Your task to perform on an android device: Open Reddit.com Image 0: 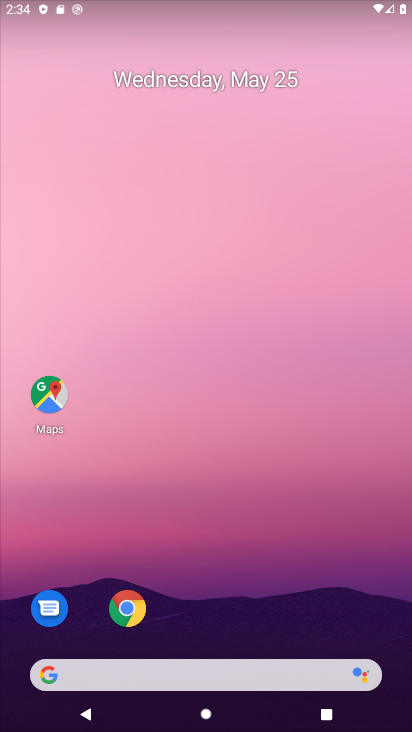
Step 0: click (128, 614)
Your task to perform on an android device: Open Reddit.com Image 1: 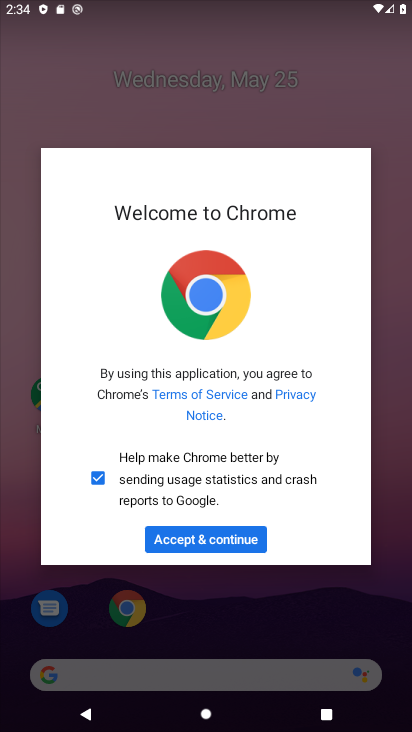
Step 1: click (191, 546)
Your task to perform on an android device: Open Reddit.com Image 2: 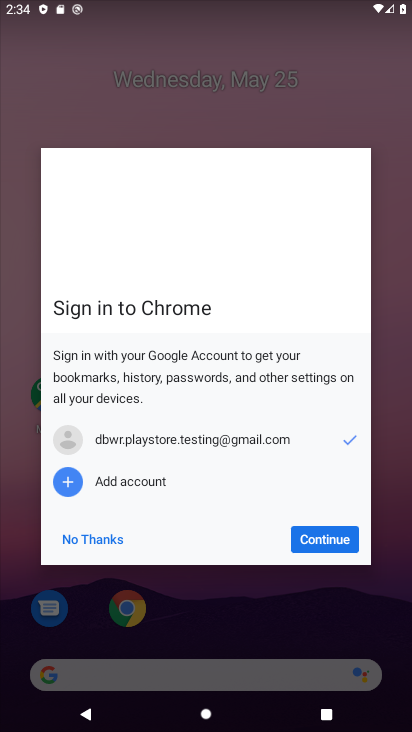
Step 2: click (109, 547)
Your task to perform on an android device: Open Reddit.com Image 3: 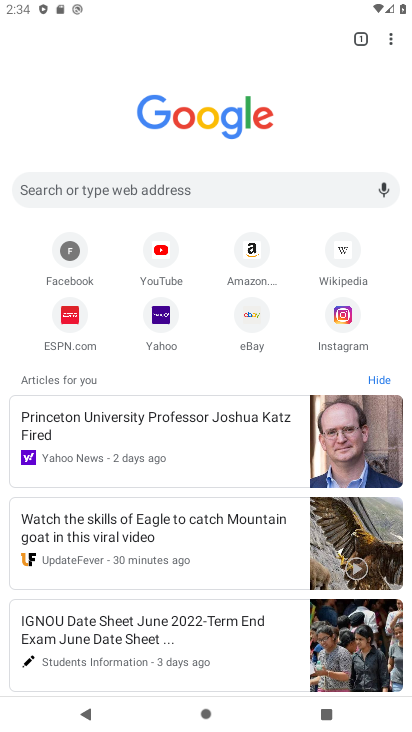
Step 3: click (100, 188)
Your task to perform on an android device: Open Reddit.com Image 4: 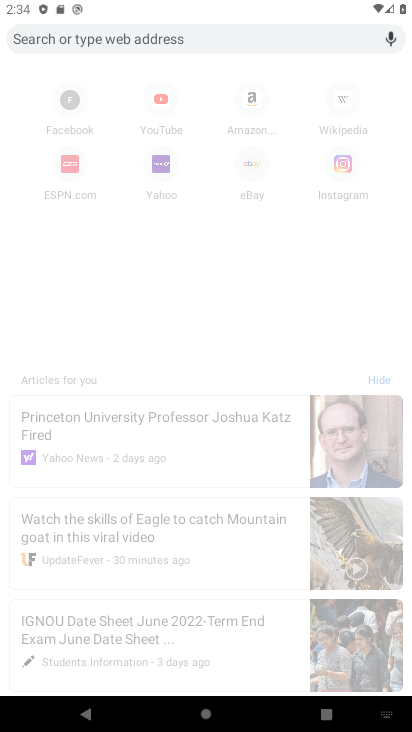
Step 4: type "reddit.com"
Your task to perform on an android device: Open Reddit.com Image 5: 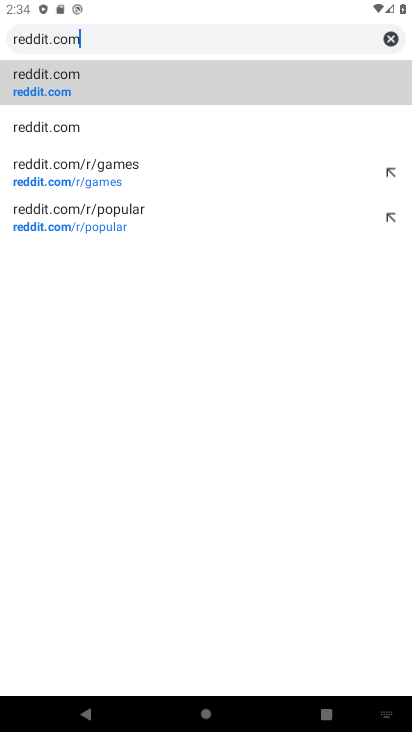
Step 5: click (40, 93)
Your task to perform on an android device: Open Reddit.com Image 6: 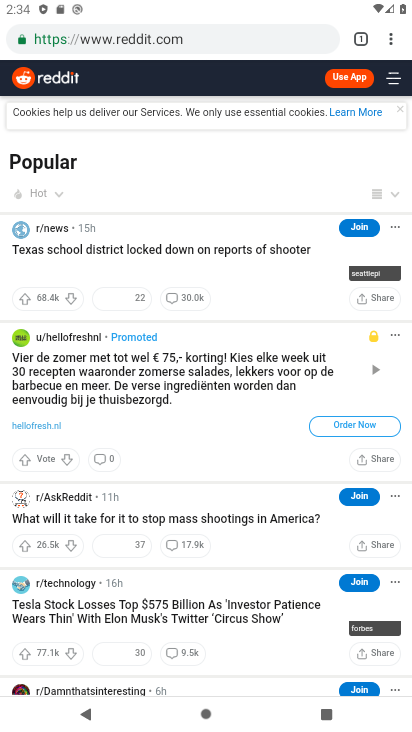
Step 6: task complete